Your task to perform on an android device: Go to eBay Image 0: 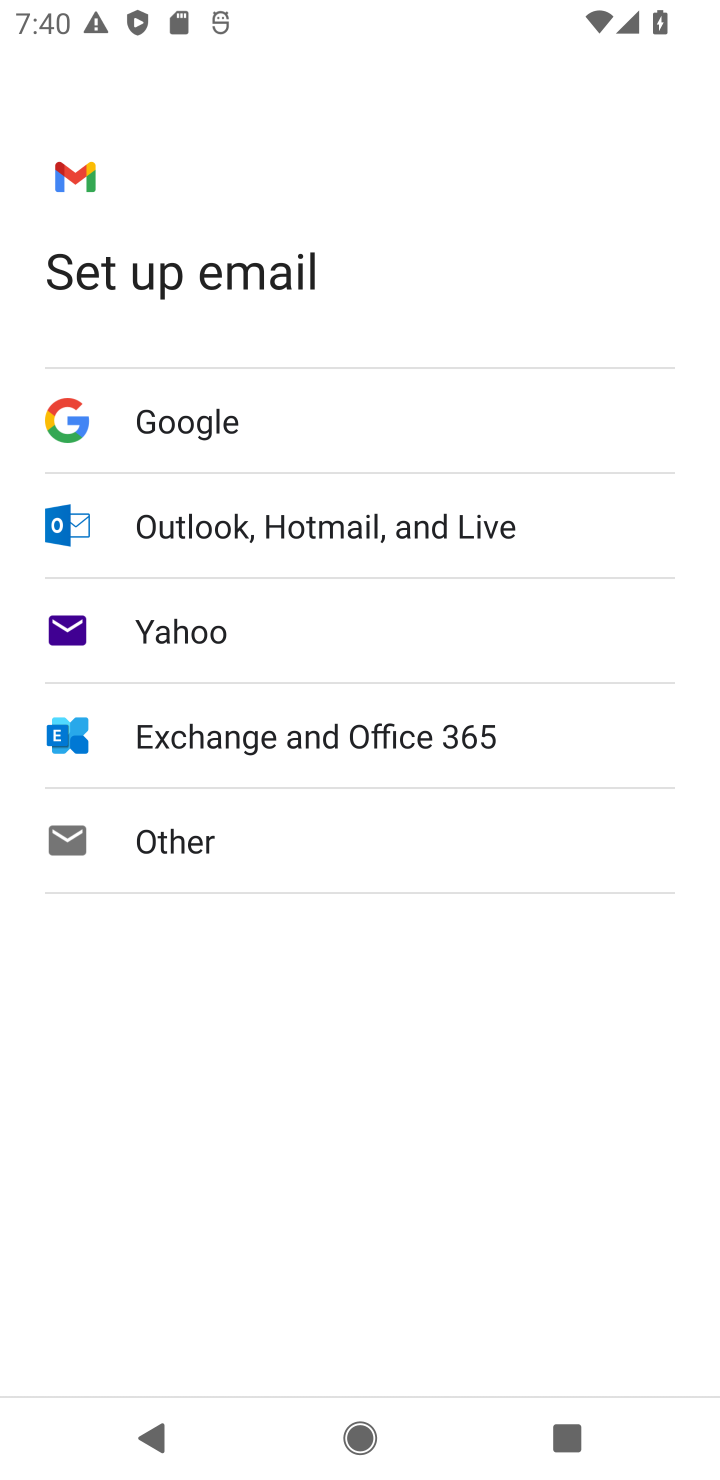
Step 0: click (287, 434)
Your task to perform on an android device: Go to eBay Image 1: 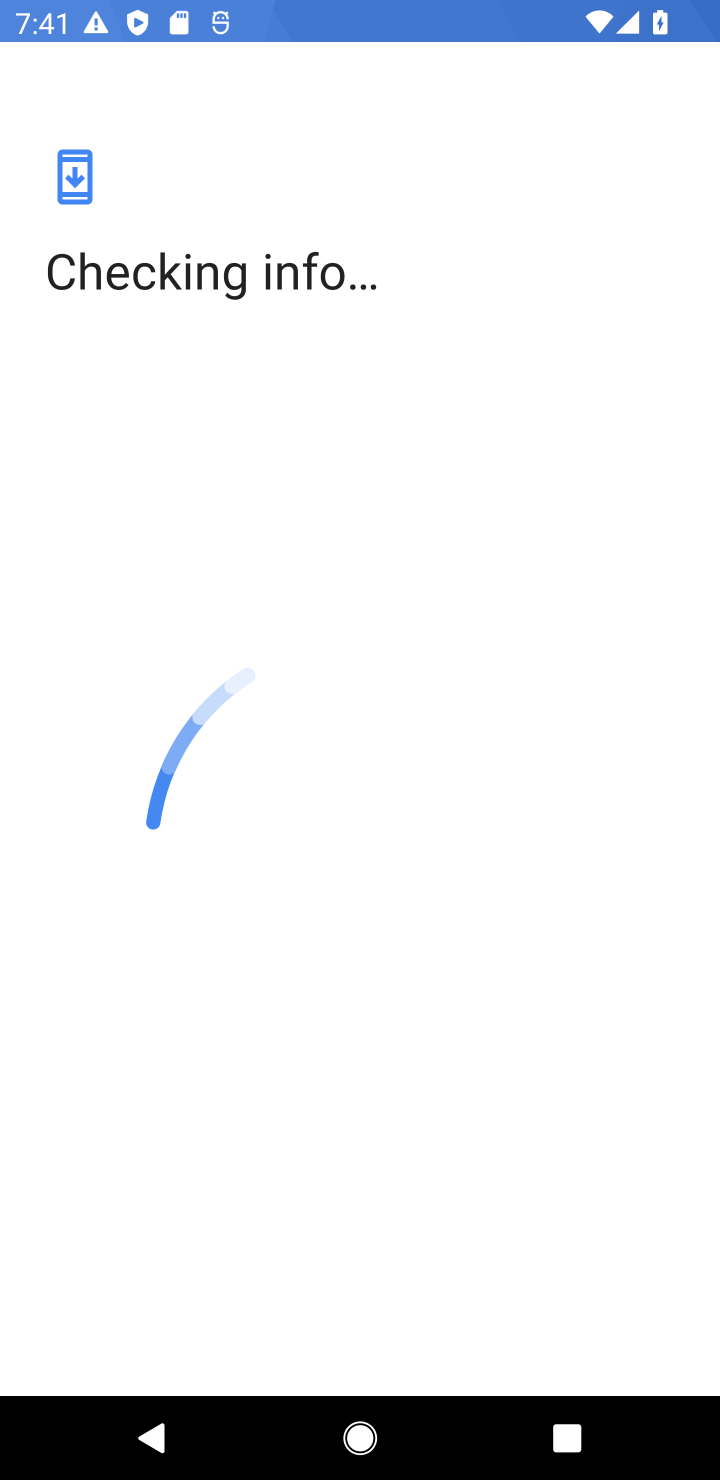
Step 1: press home button
Your task to perform on an android device: Go to eBay Image 2: 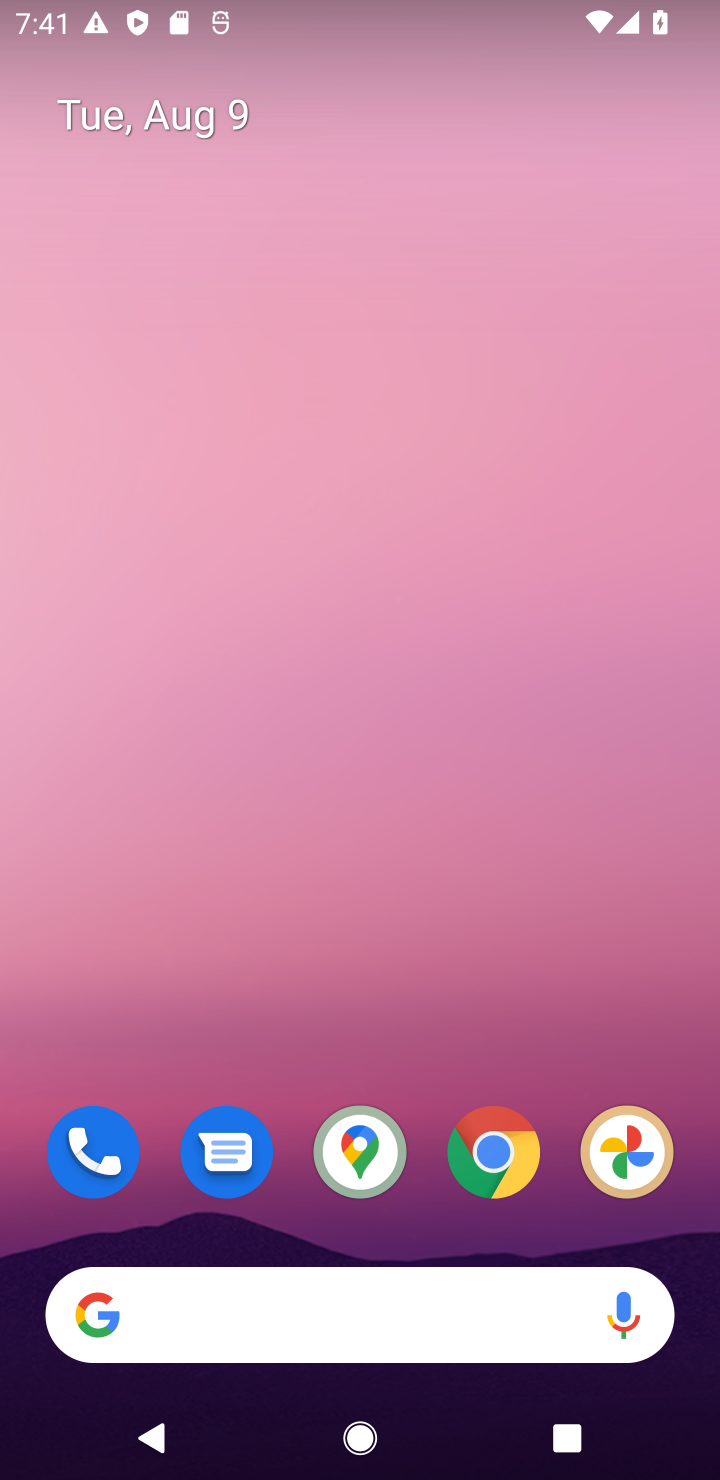
Step 2: click (395, 1354)
Your task to perform on an android device: Go to eBay Image 3: 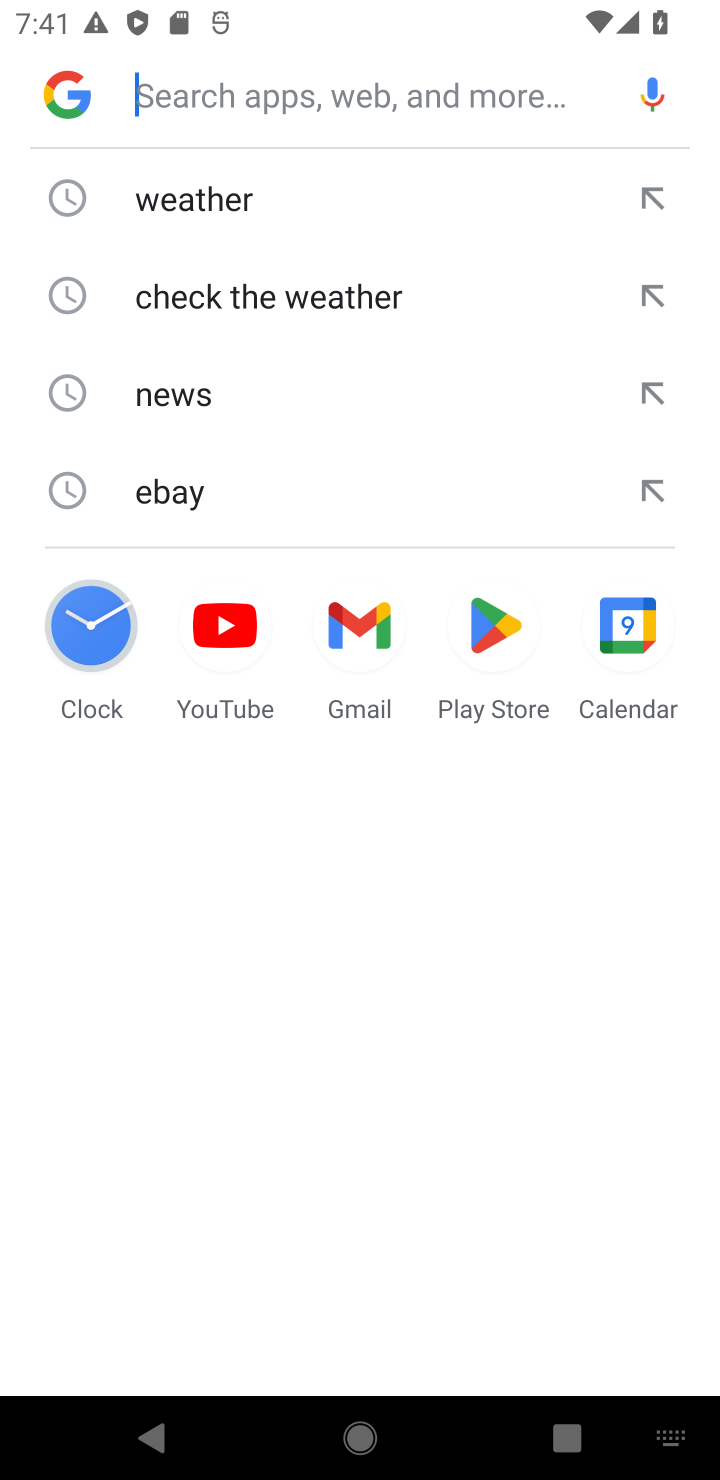
Step 3: click (107, 476)
Your task to perform on an android device: Go to eBay Image 4: 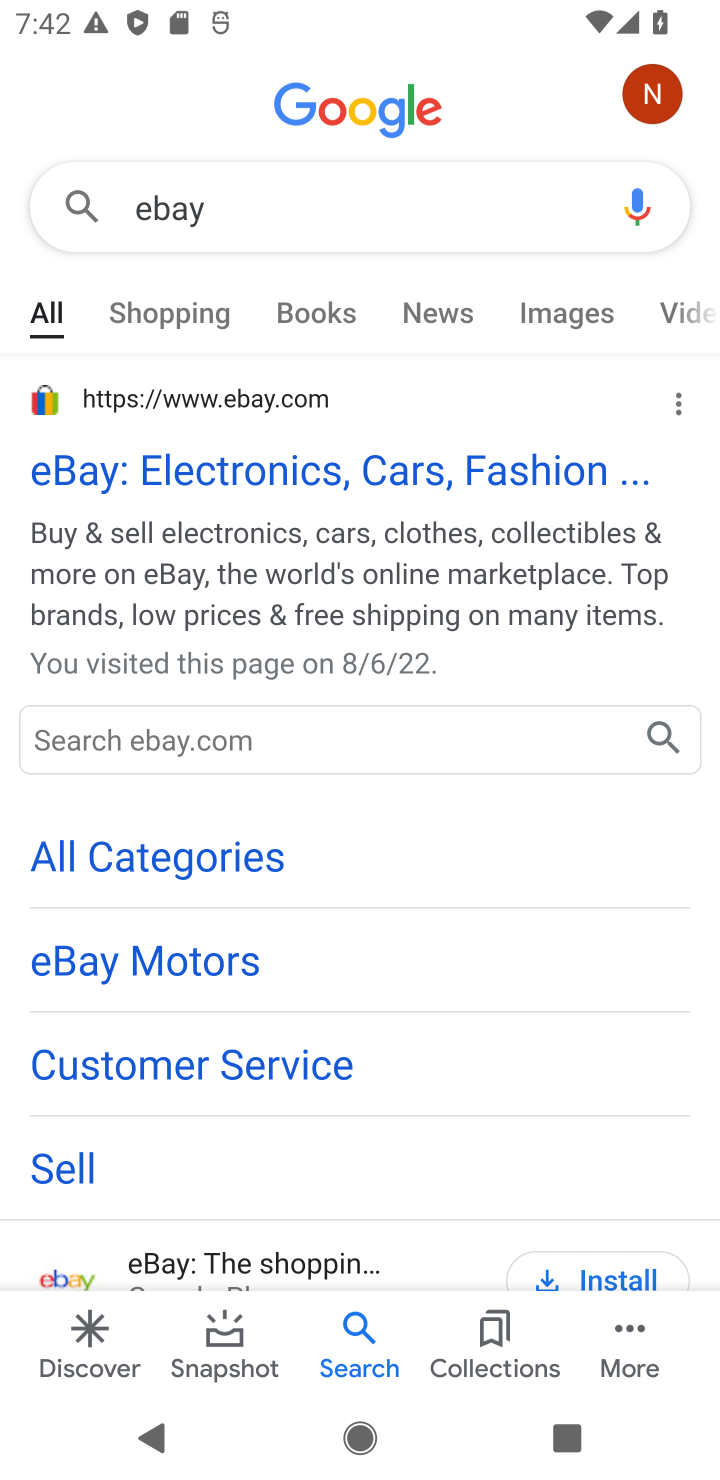
Step 4: click (388, 460)
Your task to perform on an android device: Go to eBay Image 5: 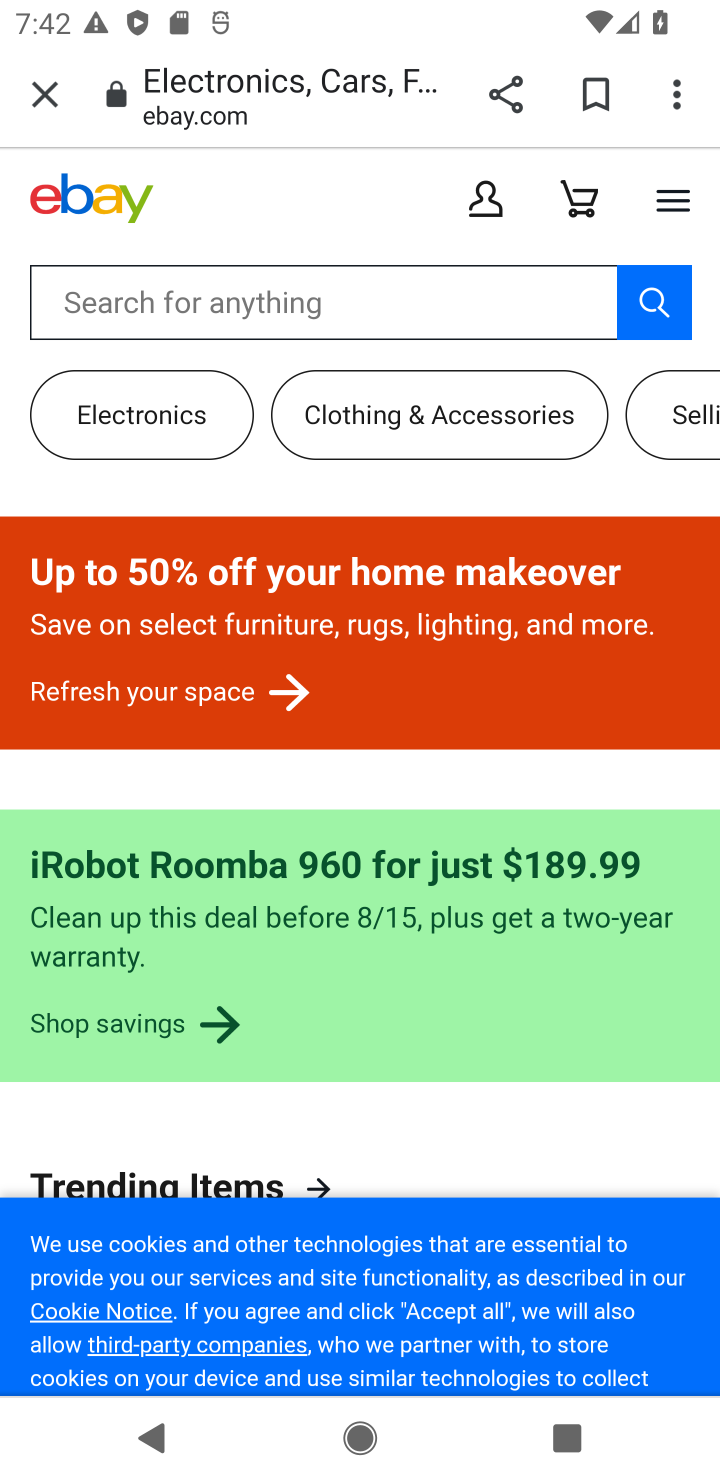
Step 5: task complete